Your task to perform on an android device: Do I have any events today? Image 0: 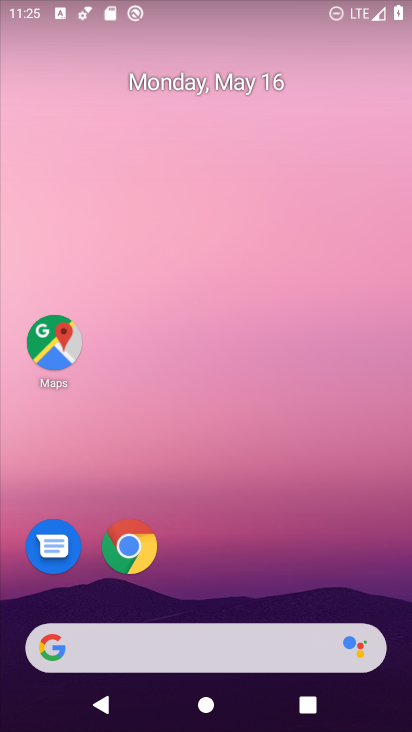
Step 0: click (194, 71)
Your task to perform on an android device: Do I have any events today? Image 1: 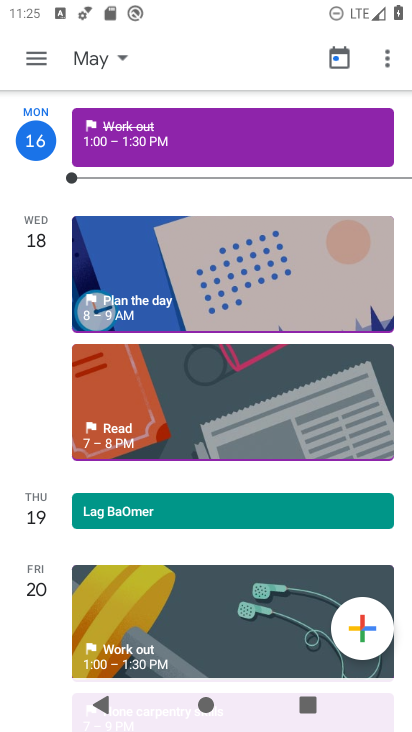
Step 1: click (214, 144)
Your task to perform on an android device: Do I have any events today? Image 2: 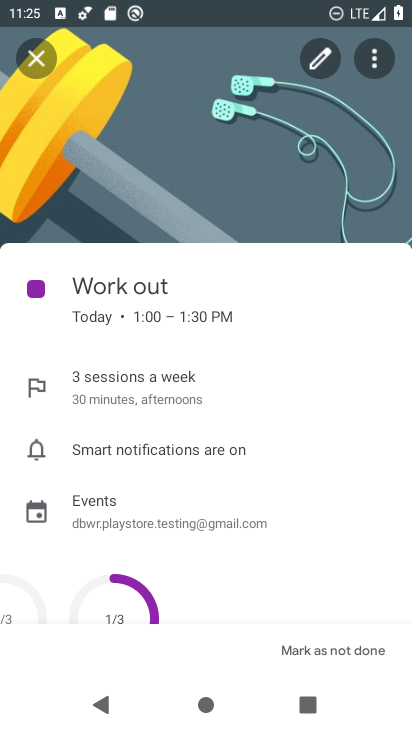
Step 2: task complete